Your task to perform on an android device: Go to Reddit.com Image 0: 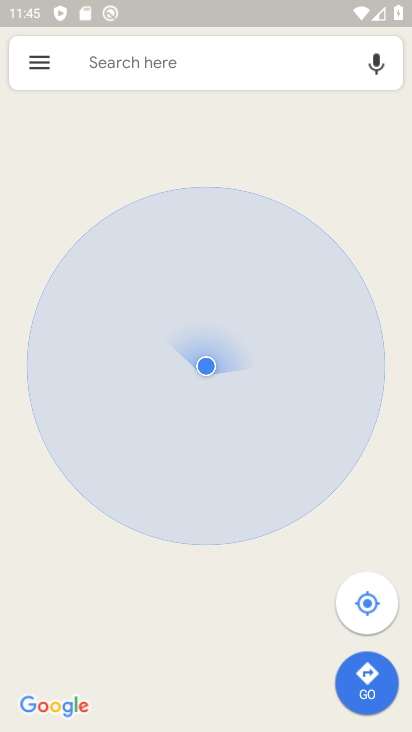
Step 0: press home button
Your task to perform on an android device: Go to Reddit.com Image 1: 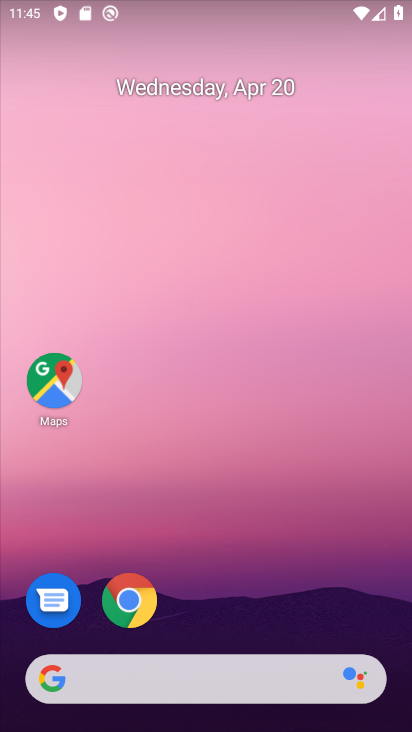
Step 1: click (108, 679)
Your task to perform on an android device: Go to Reddit.com Image 2: 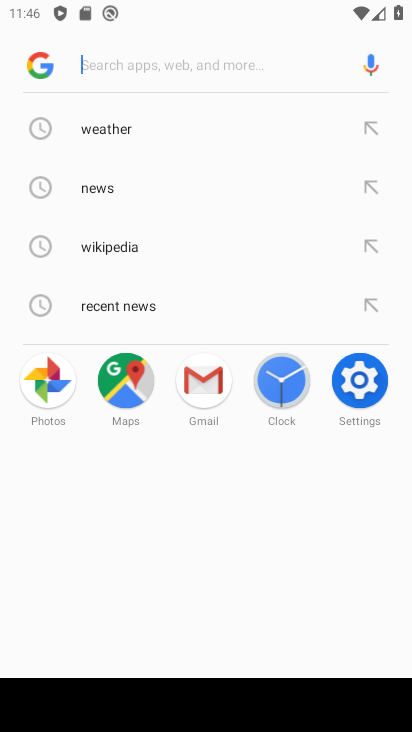
Step 2: type "reddit.com"
Your task to perform on an android device: Go to Reddit.com Image 3: 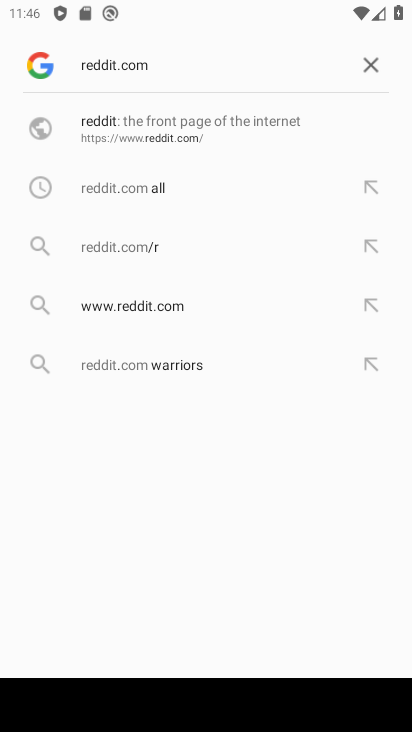
Step 3: click (190, 303)
Your task to perform on an android device: Go to Reddit.com Image 4: 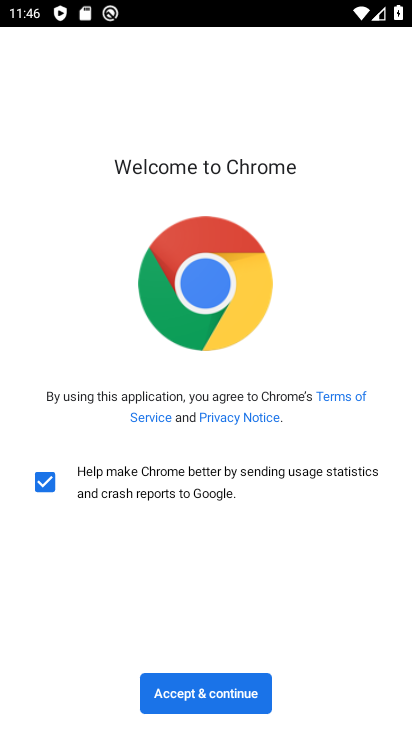
Step 4: click (215, 688)
Your task to perform on an android device: Go to Reddit.com Image 5: 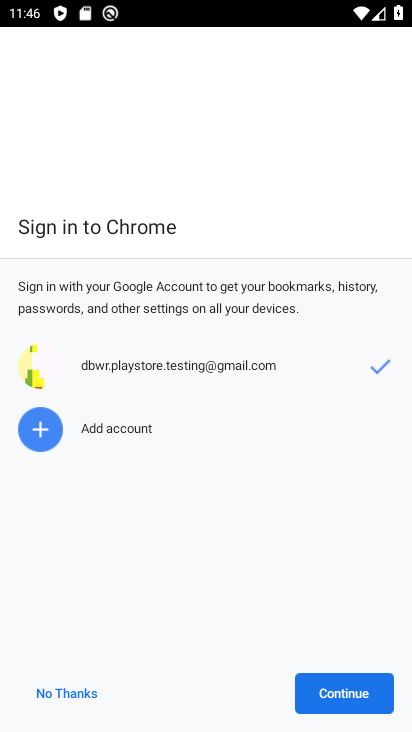
Step 5: click (330, 689)
Your task to perform on an android device: Go to Reddit.com Image 6: 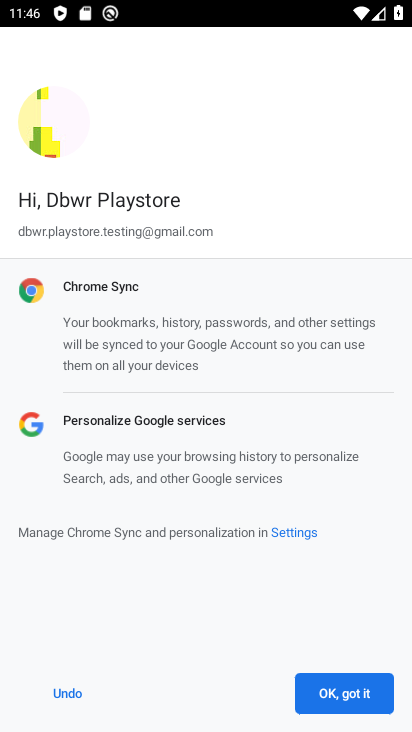
Step 6: click (330, 689)
Your task to perform on an android device: Go to Reddit.com Image 7: 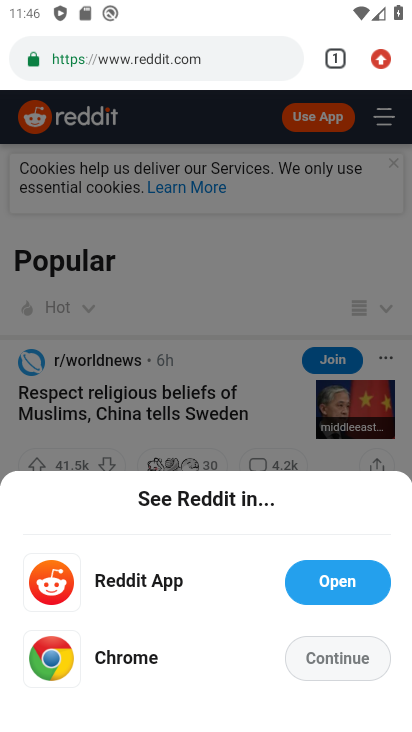
Step 7: click (351, 656)
Your task to perform on an android device: Go to Reddit.com Image 8: 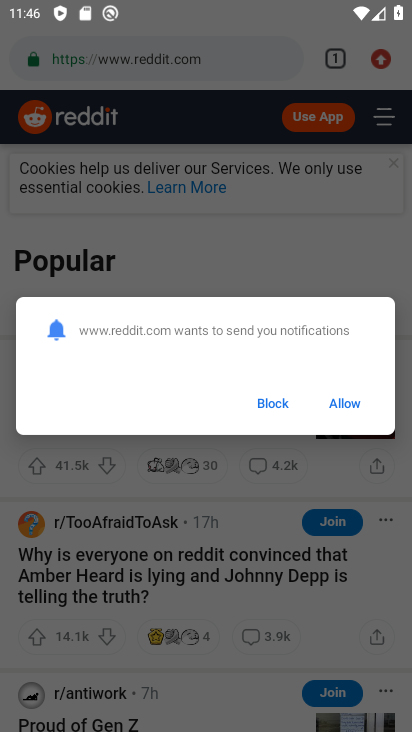
Step 8: click (276, 396)
Your task to perform on an android device: Go to Reddit.com Image 9: 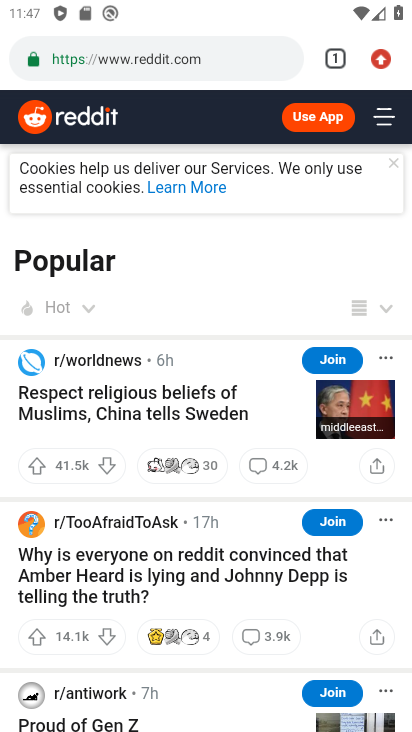
Step 9: task complete